Your task to perform on an android device: Go to Wikipedia Image 0: 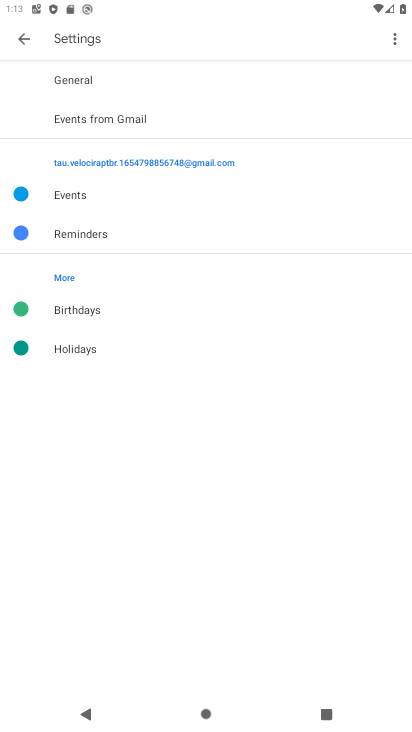
Step 0: press home button
Your task to perform on an android device: Go to Wikipedia Image 1: 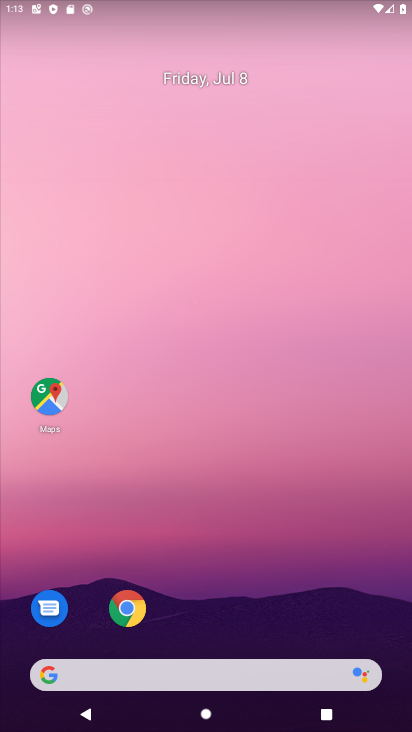
Step 1: click (126, 609)
Your task to perform on an android device: Go to Wikipedia Image 2: 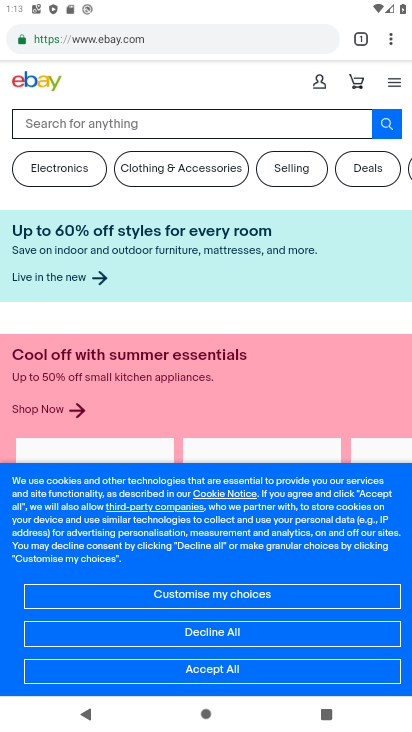
Step 2: click (158, 36)
Your task to perform on an android device: Go to Wikipedia Image 3: 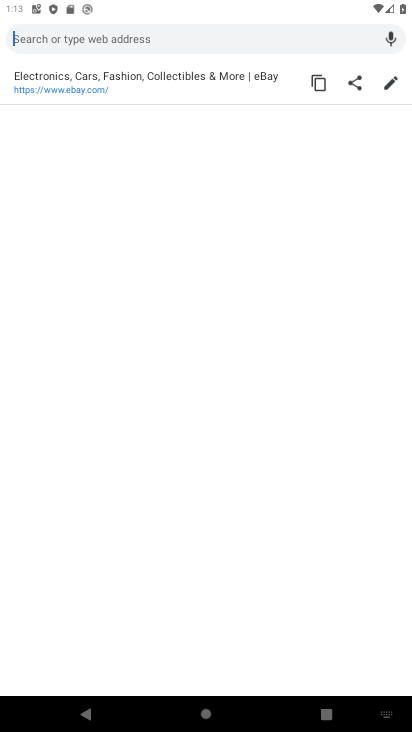
Step 3: type "wikipedia"
Your task to perform on an android device: Go to Wikipedia Image 4: 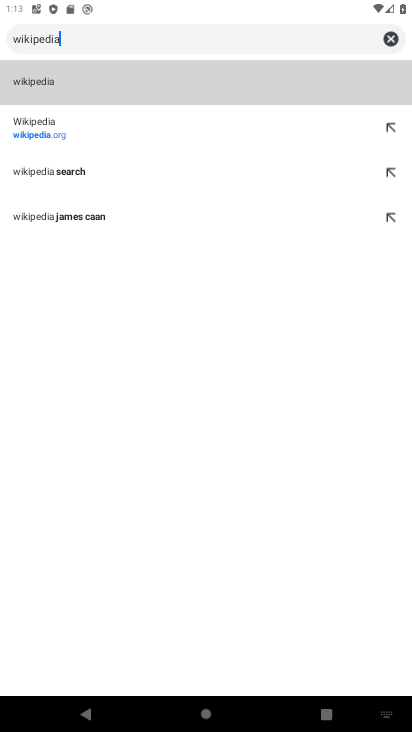
Step 4: click (86, 79)
Your task to perform on an android device: Go to Wikipedia Image 5: 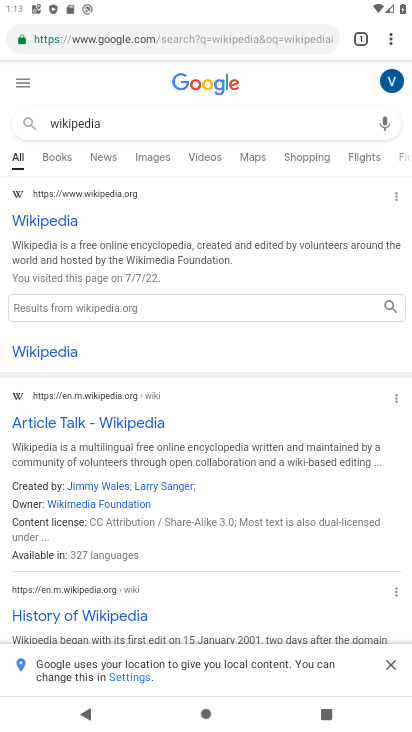
Step 5: click (42, 215)
Your task to perform on an android device: Go to Wikipedia Image 6: 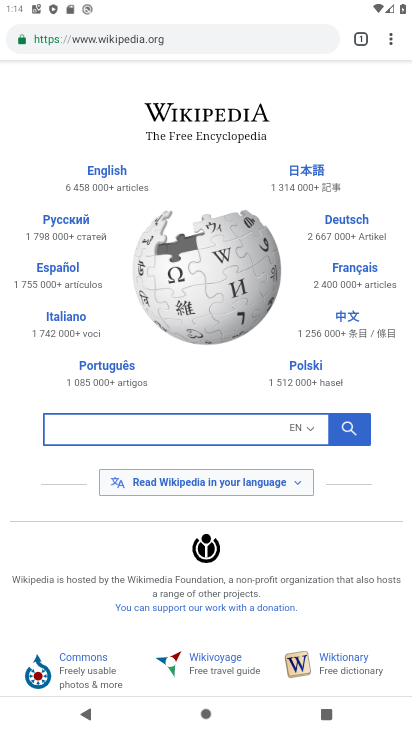
Step 6: task complete